Your task to perform on an android device: turn on wifi Image 0: 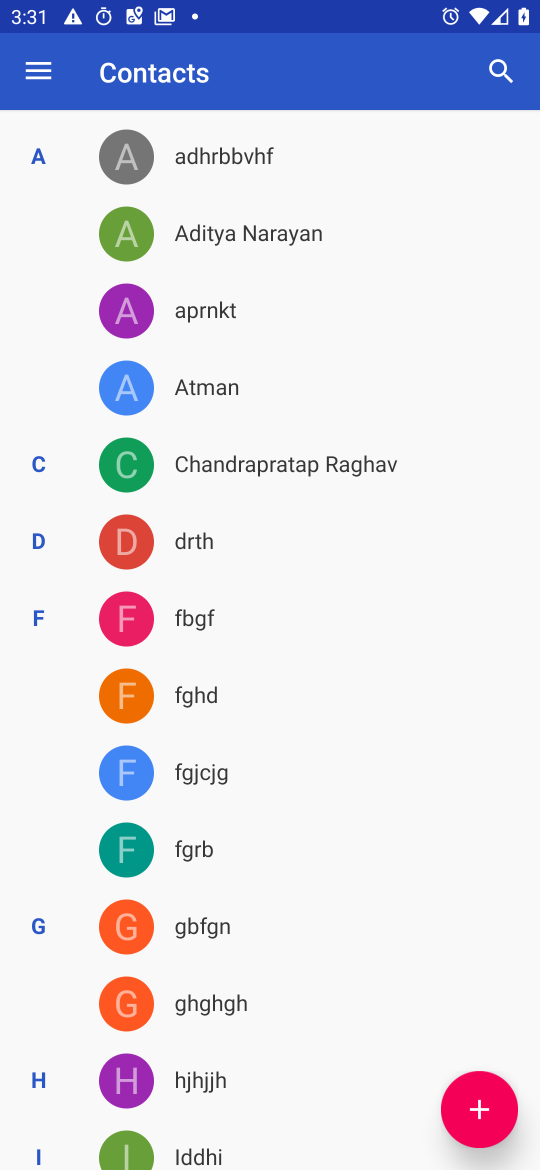
Step 0: press home button
Your task to perform on an android device: turn on wifi Image 1: 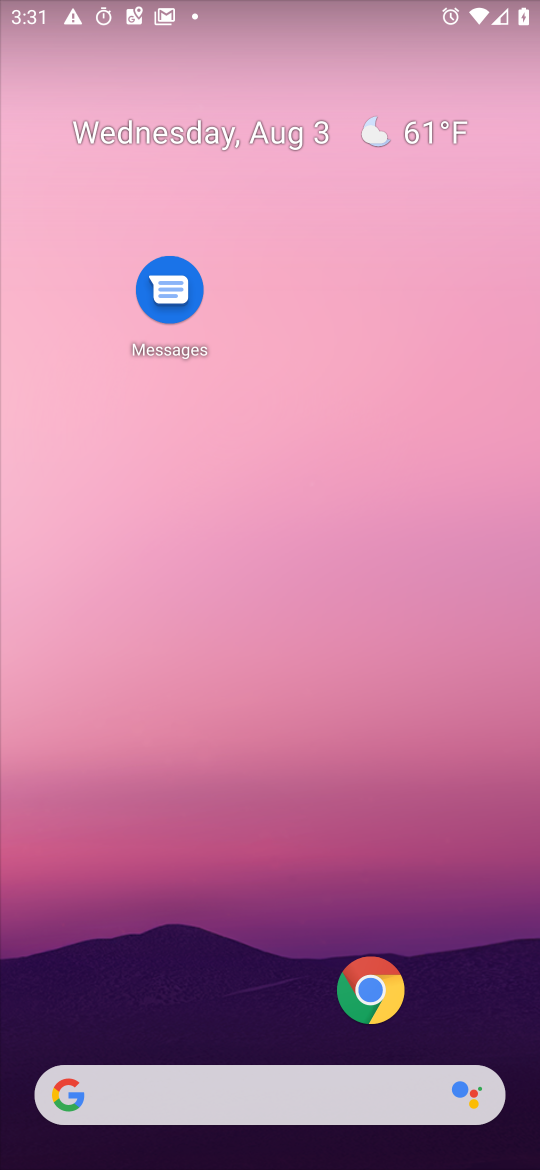
Step 1: drag from (277, 1089) to (290, 292)
Your task to perform on an android device: turn on wifi Image 2: 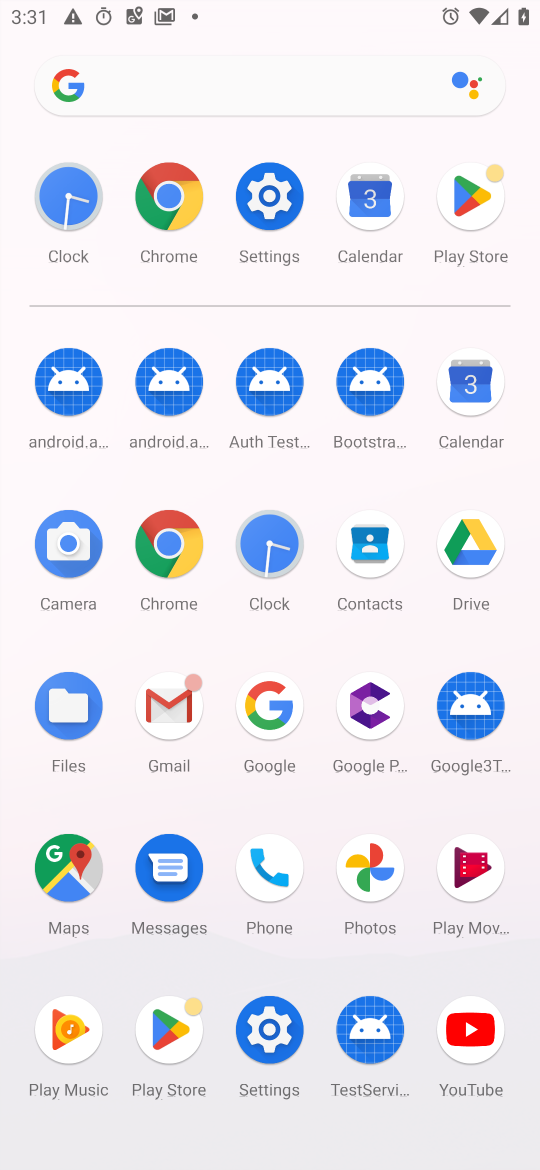
Step 2: click (200, 719)
Your task to perform on an android device: turn on wifi Image 3: 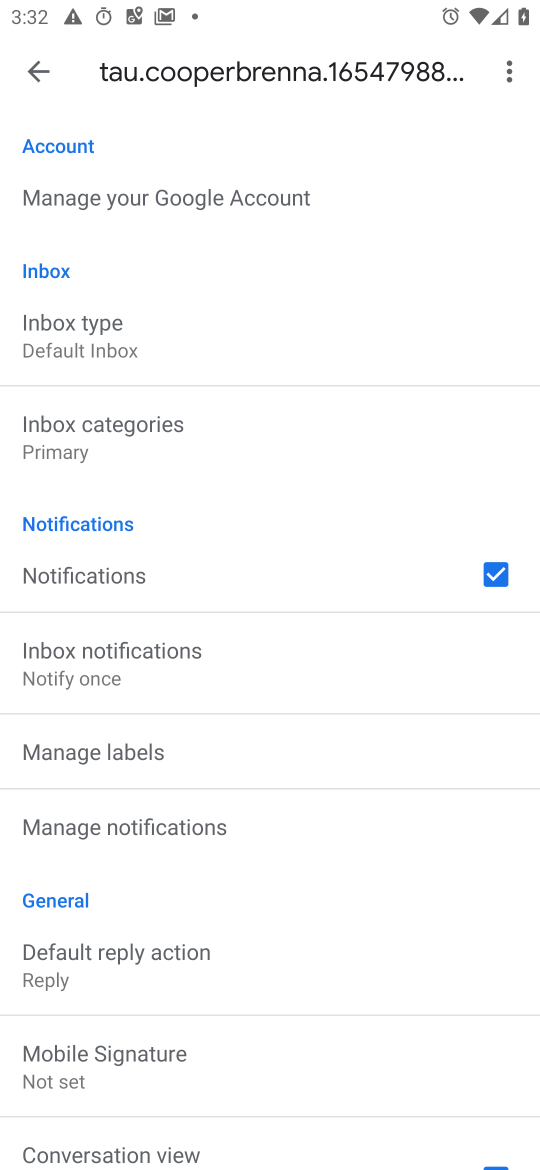
Step 3: drag from (42, 72) to (124, 72)
Your task to perform on an android device: turn on wifi Image 4: 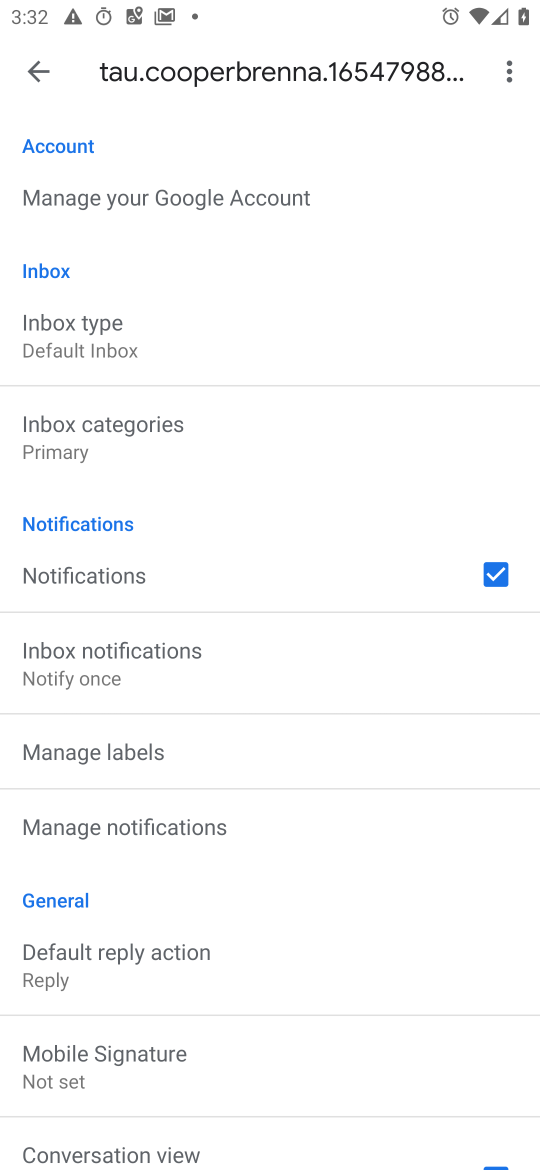
Step 4: click (33, 75)
Your task to perform on an android device: turn on wifi Image 5: 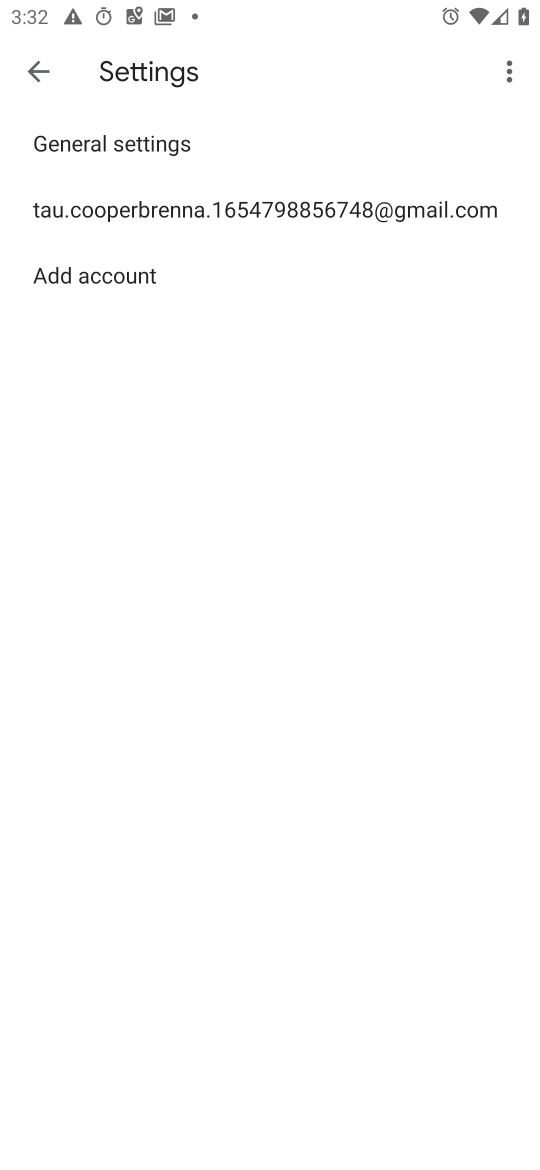
Step 5: press home button
Your task to perform on an android device: turn on wifi Image 6: 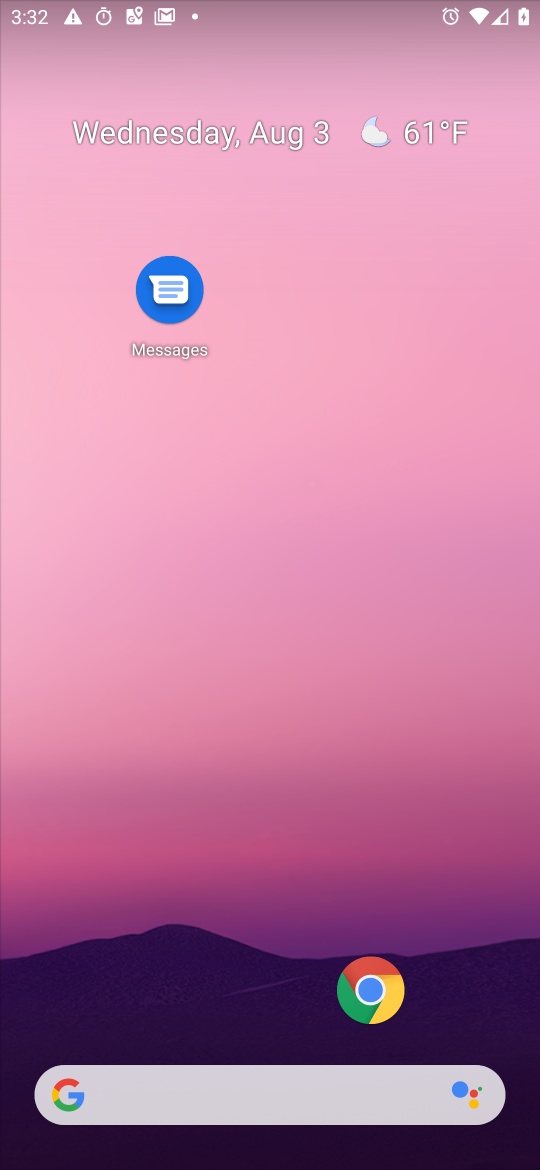
Step 6: drag from (271, 1060) to (313, 246)
Your task to perform on an android device: turn on wifi Image 7: 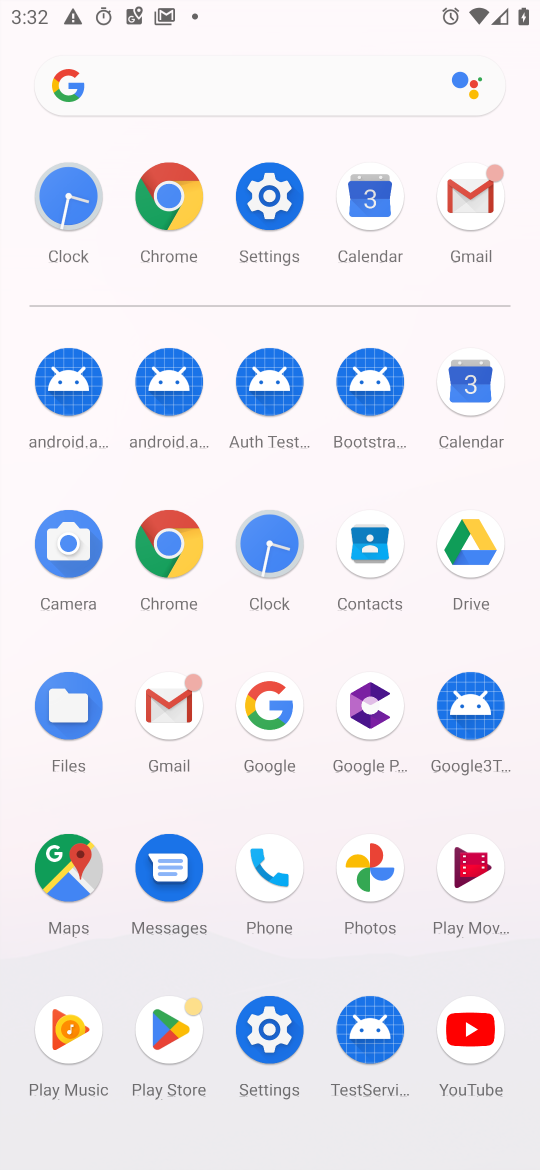
Step 7: click (276, 203)
Your task to perform on an android device: turn on wifi Image 8: 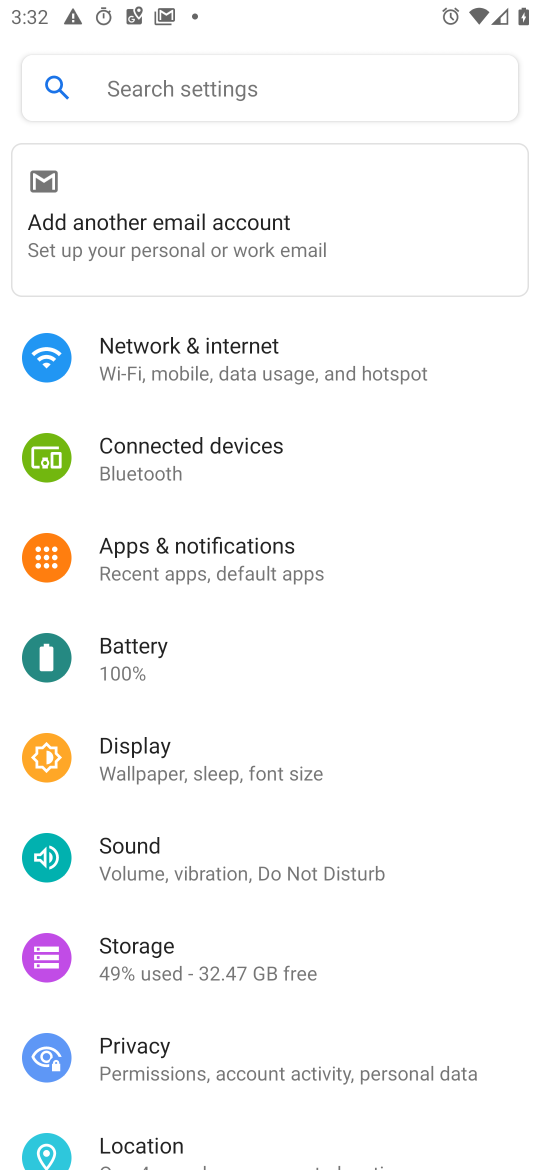
Step 8: click (273, 370)
Your task to perform on an android device: turn on wifi Image 9: 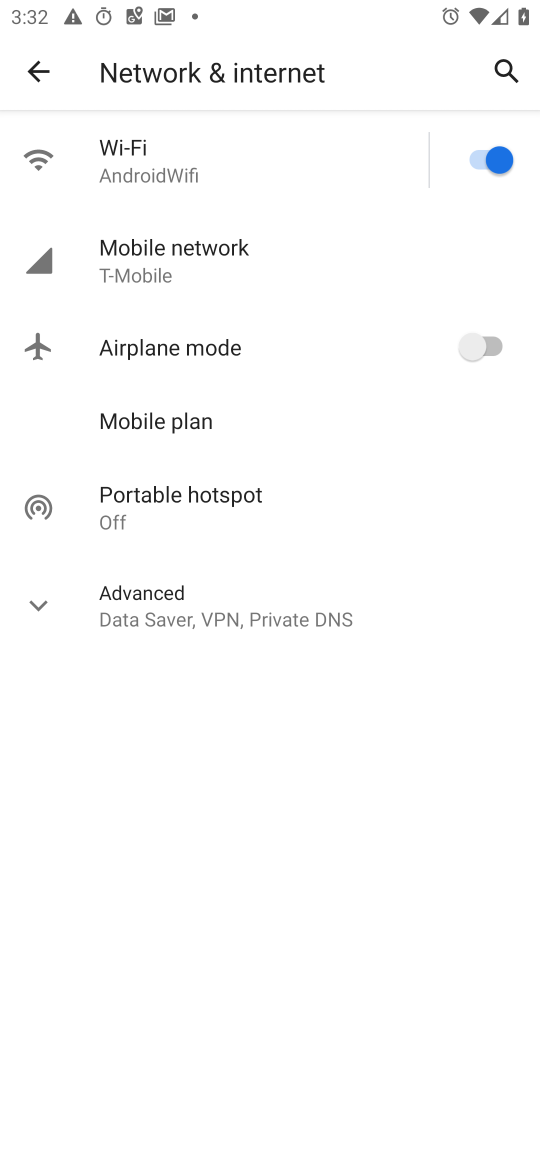
Step 9: task complete